Your task to perform on an android device: Add "energizer triple a" to the cart on ebay.com Image 0: 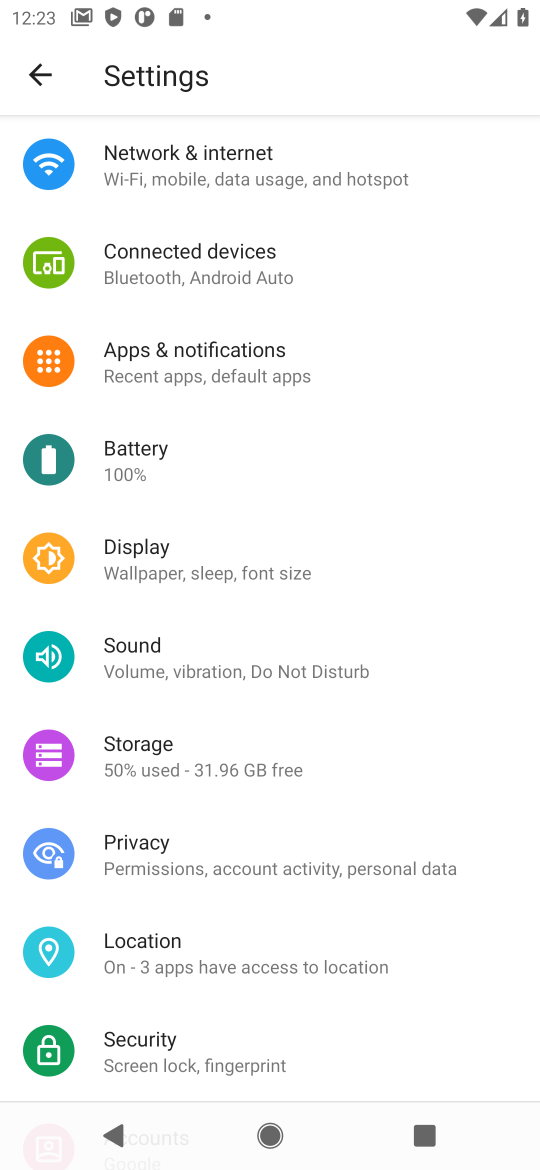
Step 0: press home button
Your task to perform on an android device: Add "energizer triple a" to the cart on ebay.com Image 1: 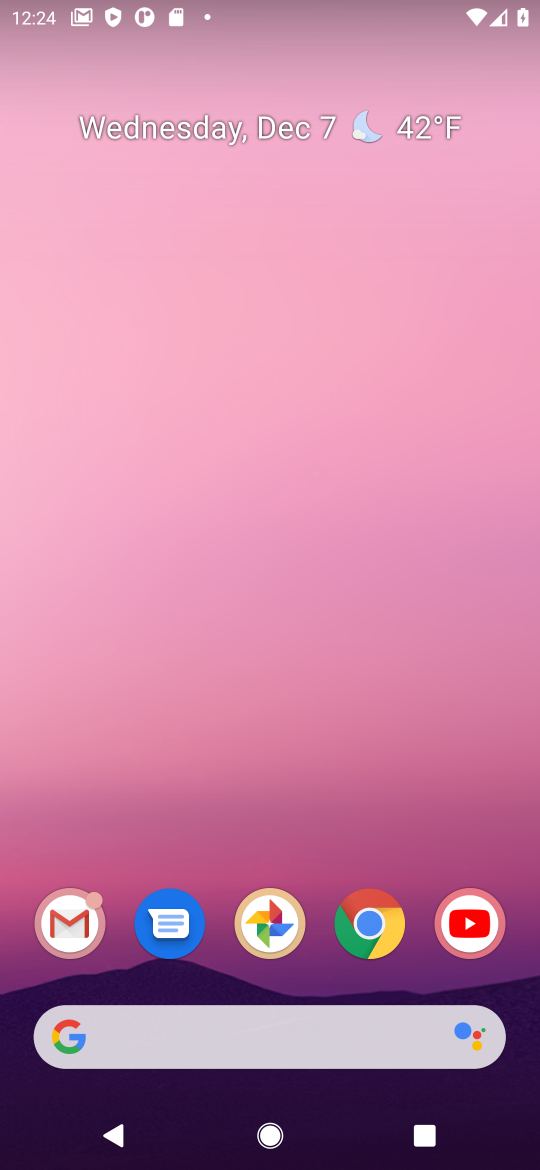
Step 1: click (368, 936)
Your task to perform on an android device: Add "energizer triple a" to the cart on ebay.com Image 2: 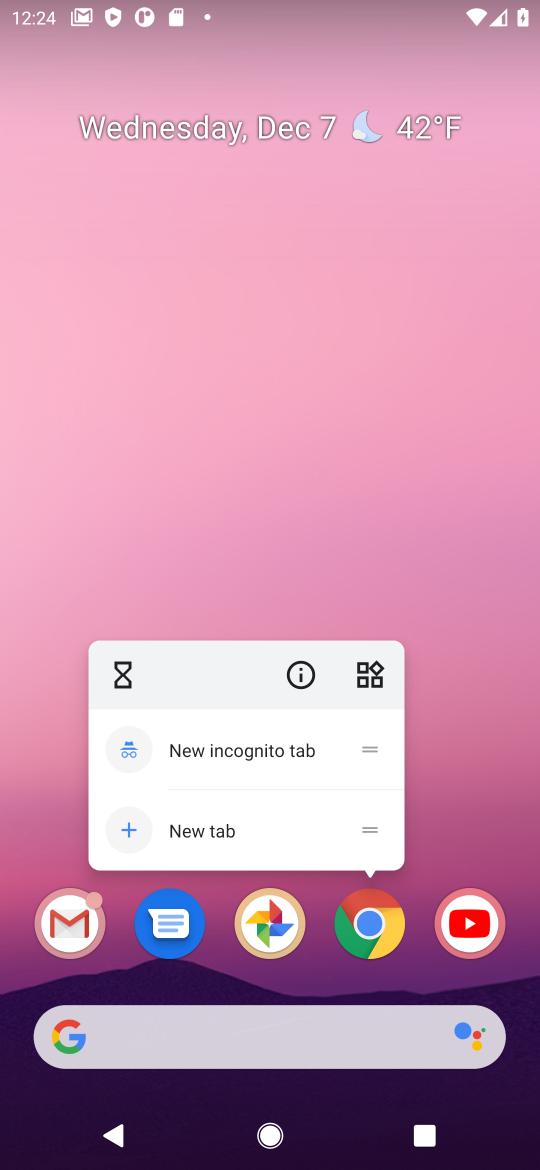
Step 2: click (364, 929)
Your task to perform on an android device: Add "energizer triple a" to the cart on ebay.com Image 3: 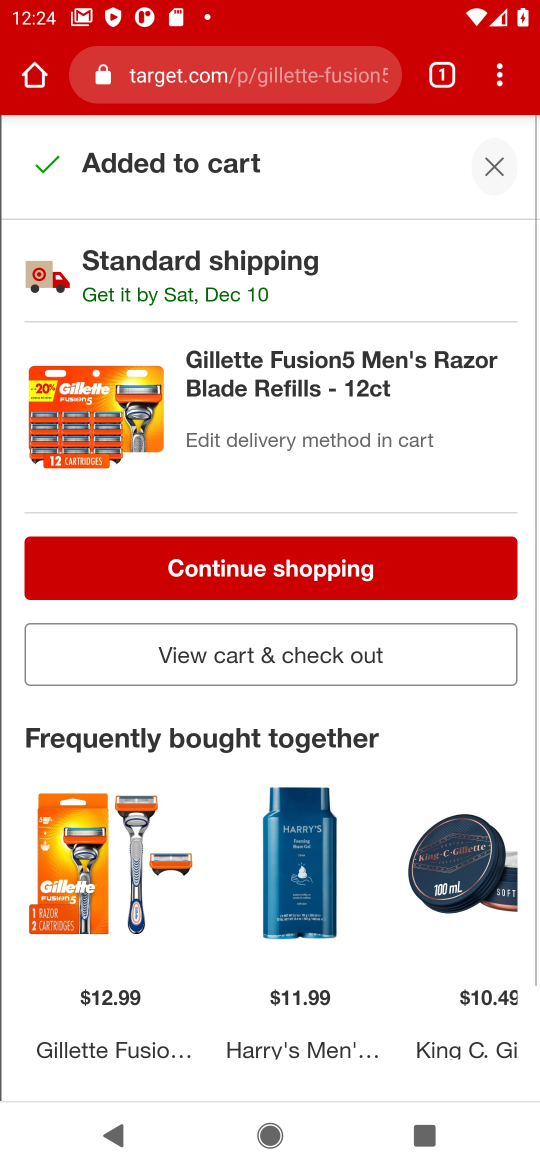
Step 3: click (276, 72)
Your task to perform on an android device: Add "energizer triple a" to the cart on ebay.com Image 4: 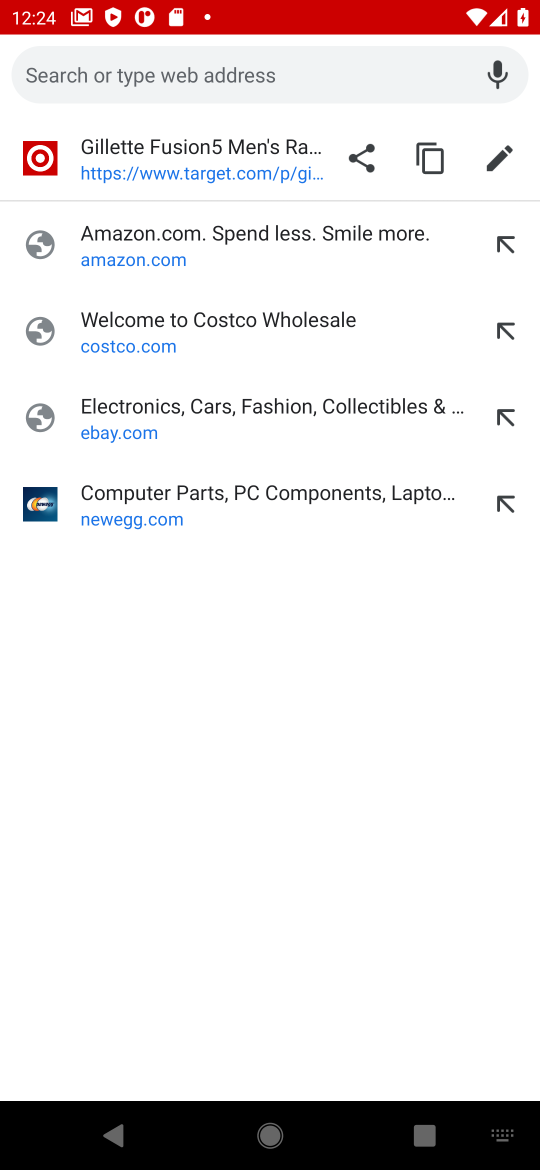
Step 4: click (165, 430)
Your task to perform on an android device: Add "energizer triple a" to the cart on ebay.com Image 5: 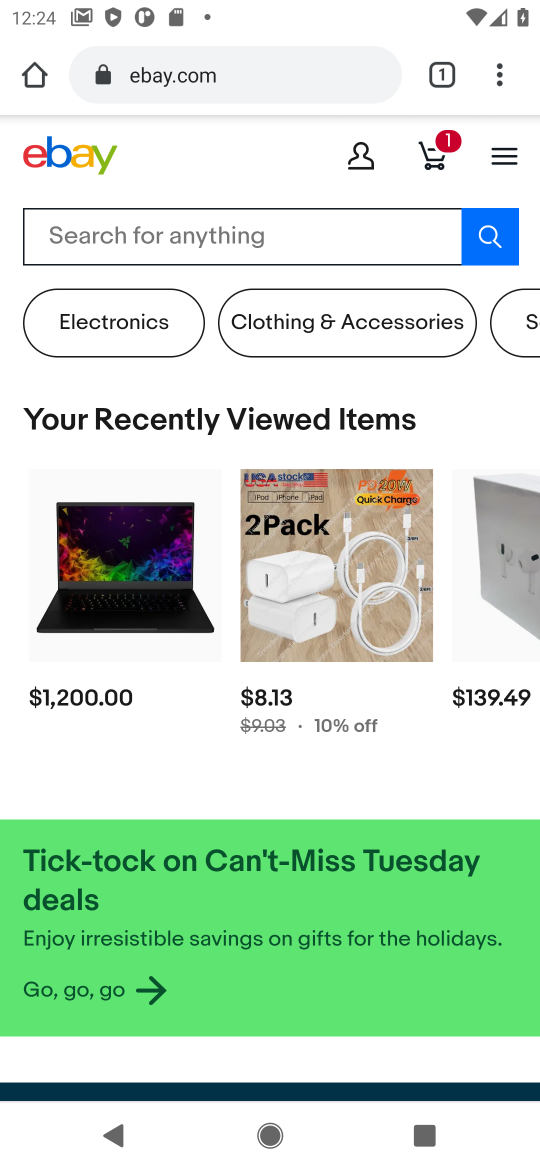
Step 5: click (345, 232)
Your task to perform on an android device: Add "energizer triple a" to the cart on ebay.com Image 6: 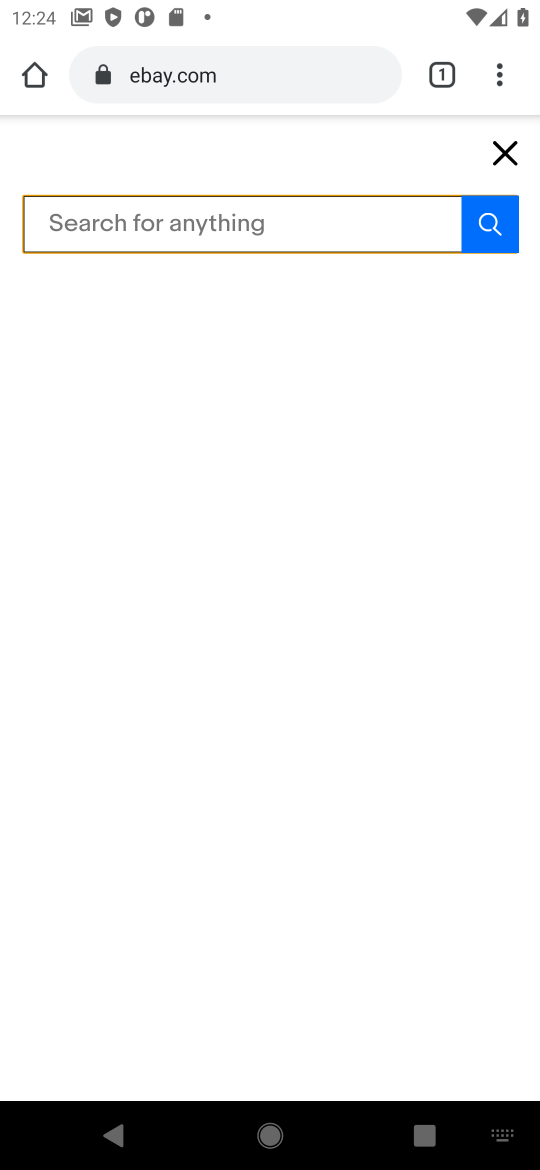
Step 6: type "energizer triple a"
Your task to perform on an android device: Add "energizer triple a" to the cart on ebay.com Image 7: 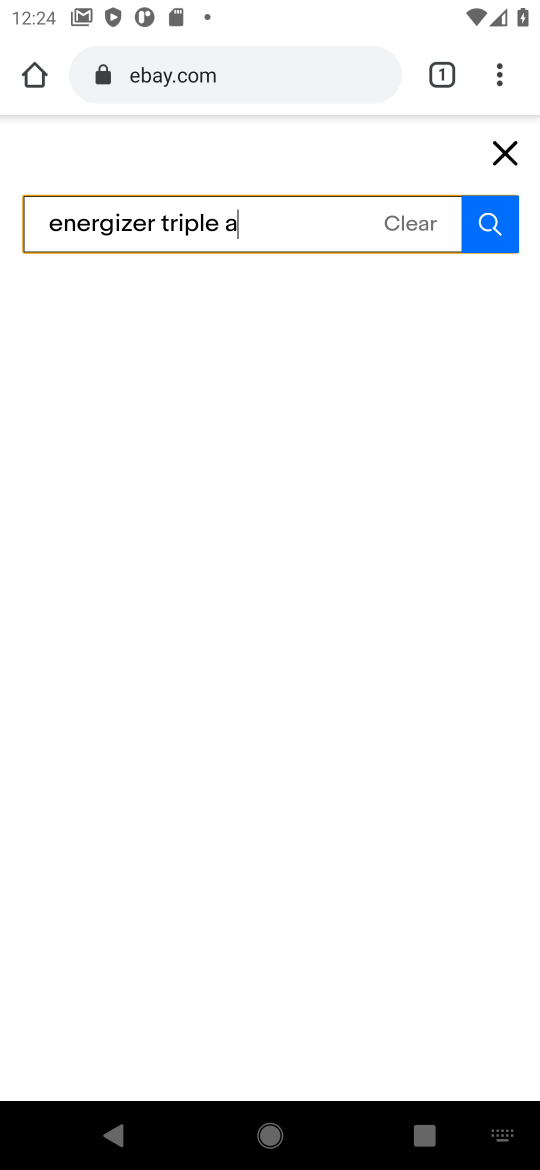
Step 7: click (488, 217)
Your task to perform on an android device: Add "energizer triple a" to the cart on ebay.com Image 8: 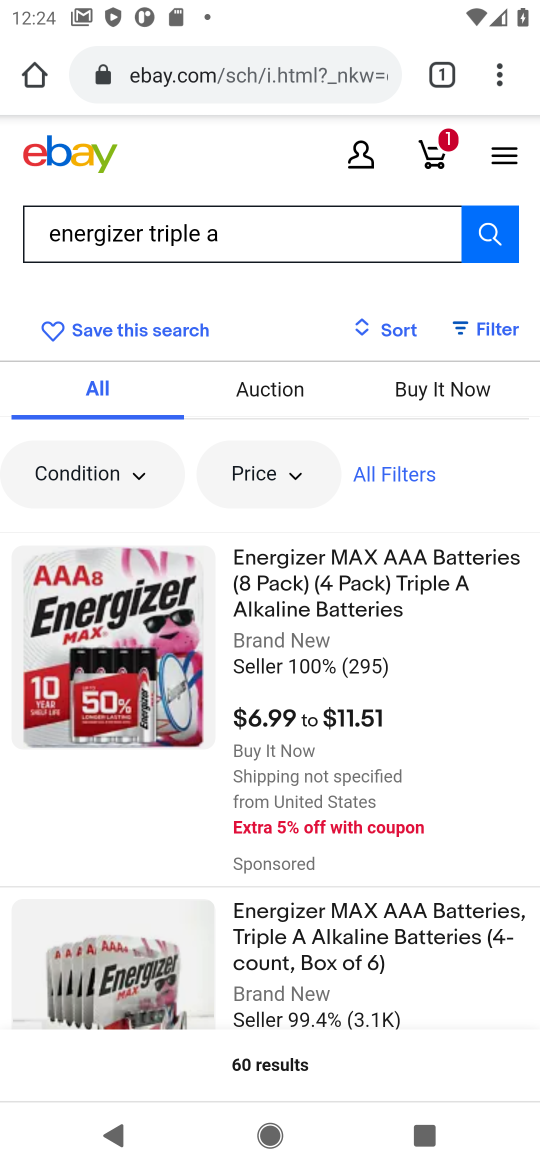
Step 8: click (114, 679)
Your task to perform on an android device: Add "energizer triple a" to the cart on ebay.com Image 9: 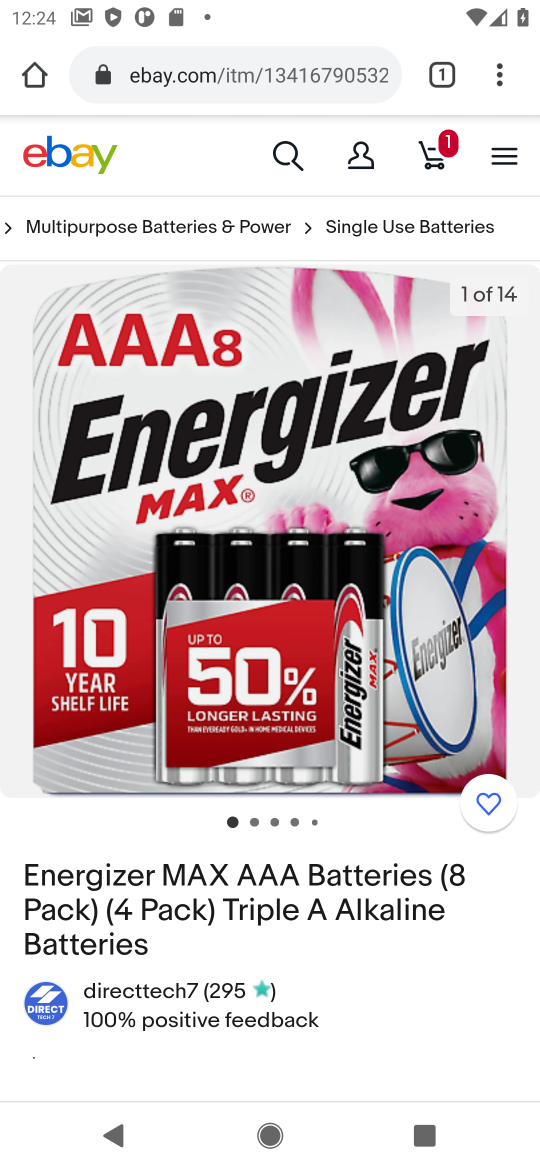
Step 9: drag from (353, 1004) to (361, 570)
Your task to perform on an android device: Add "energizer triple a" to the cart on ebay.com Image 10: 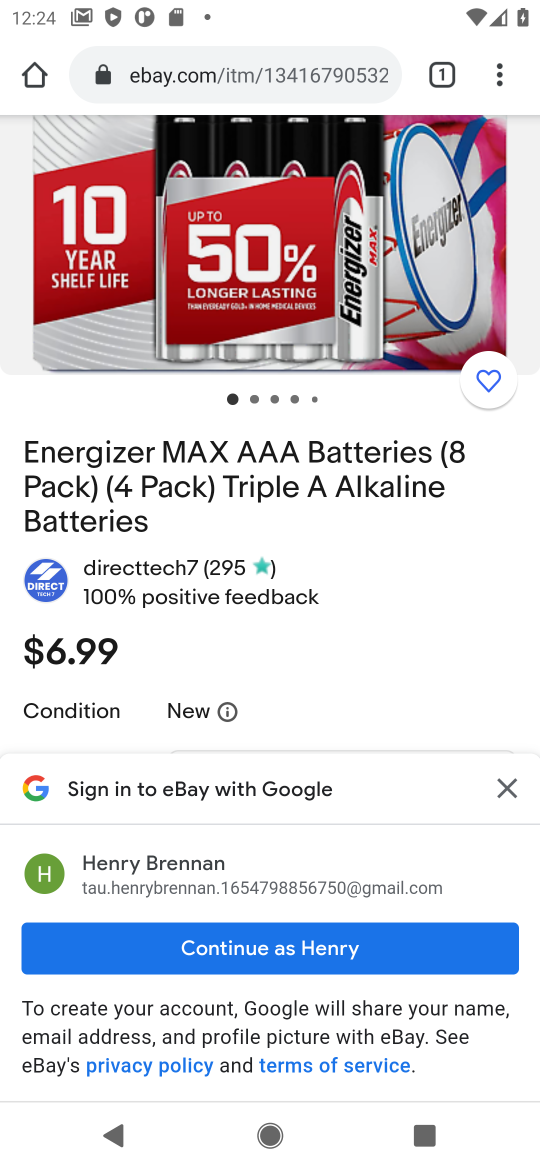
Step 10: click (498, 788)
Your task to perform on an android device: Add "energizer triple a" to the cart on ebay.com Image 11: 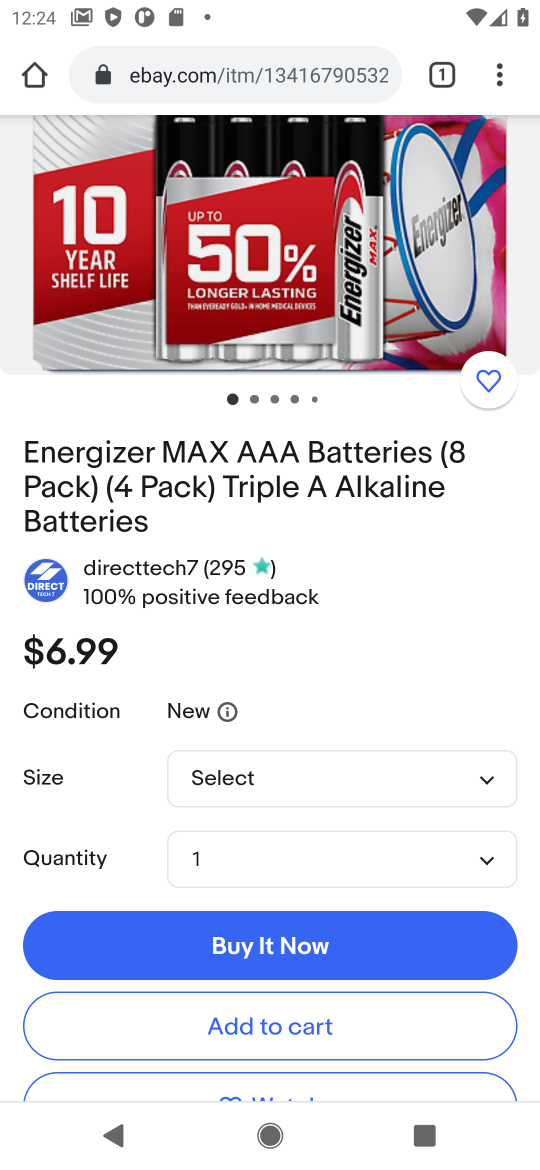
Step 11: click (251, 1025)
Your task to perform on an android device: Add "energizer triple a" to the cart on ebay.com Image 12: 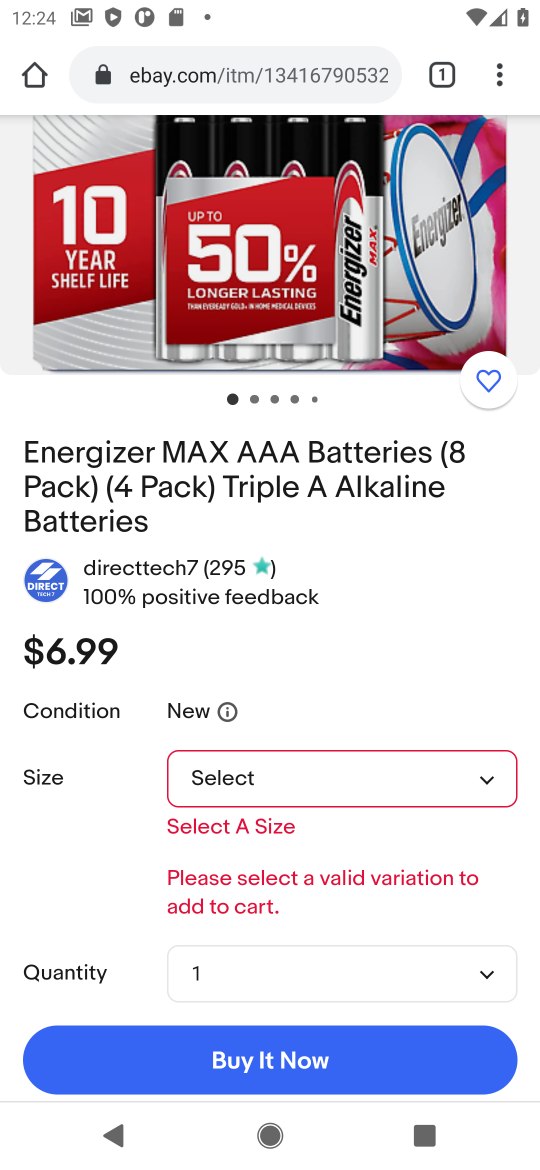
Step 12: click (384, 788)
Your task to perform on an android device: Add "energizer triple a" to the cart on ebay.com Image 13: 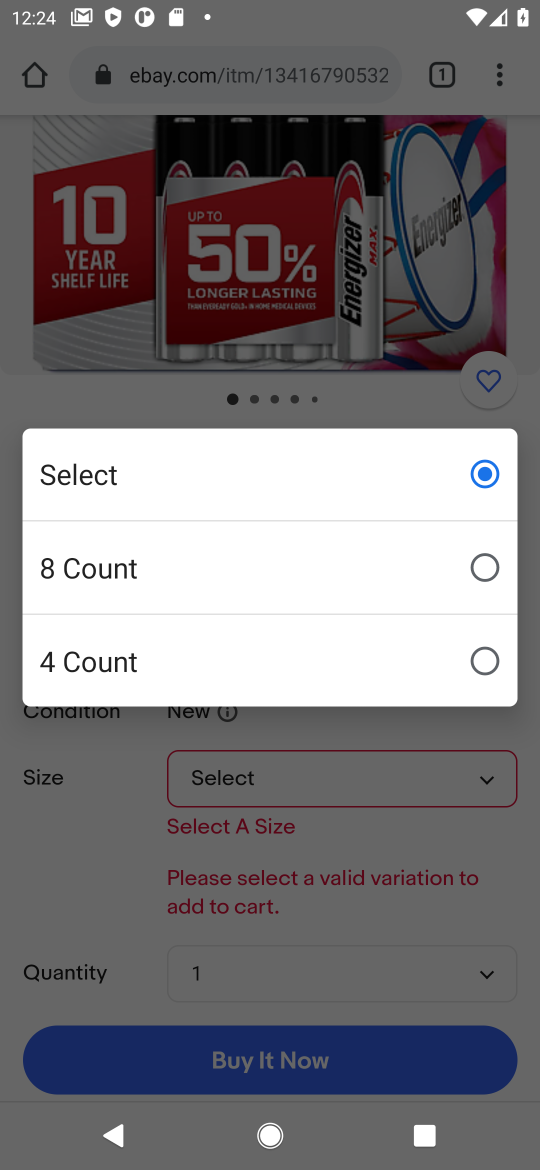
Step 13: click (245, 584)
Your task to perform on an android device: Add "energizer triple a" to the cart on ebay.com Image 14: 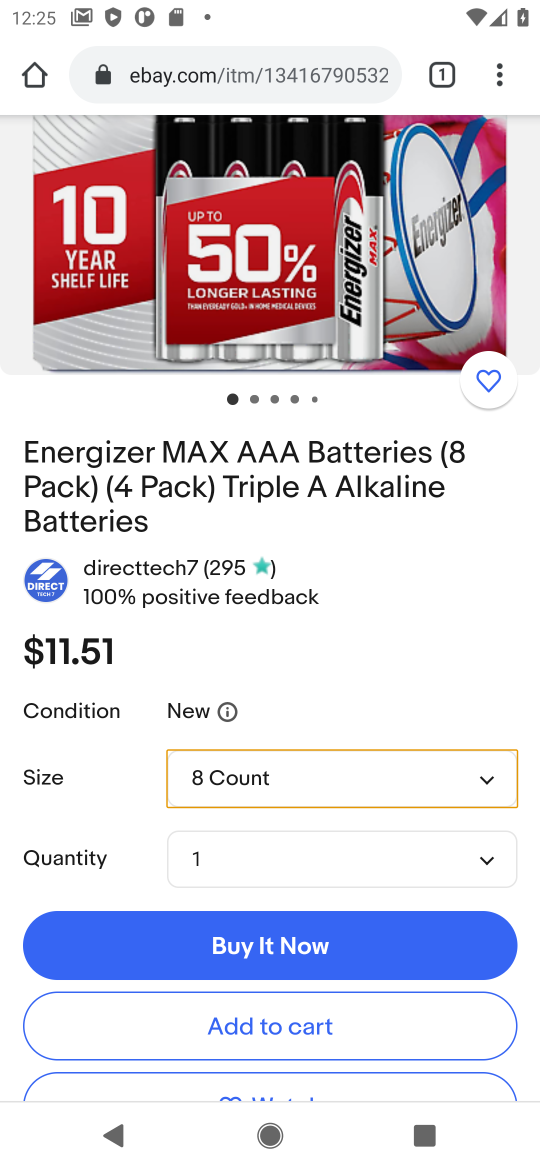
Step 14: click (288, 1033)
Your task to perform on an android device: Add "energizer triple a" to the cart on ebay.com Image 15: 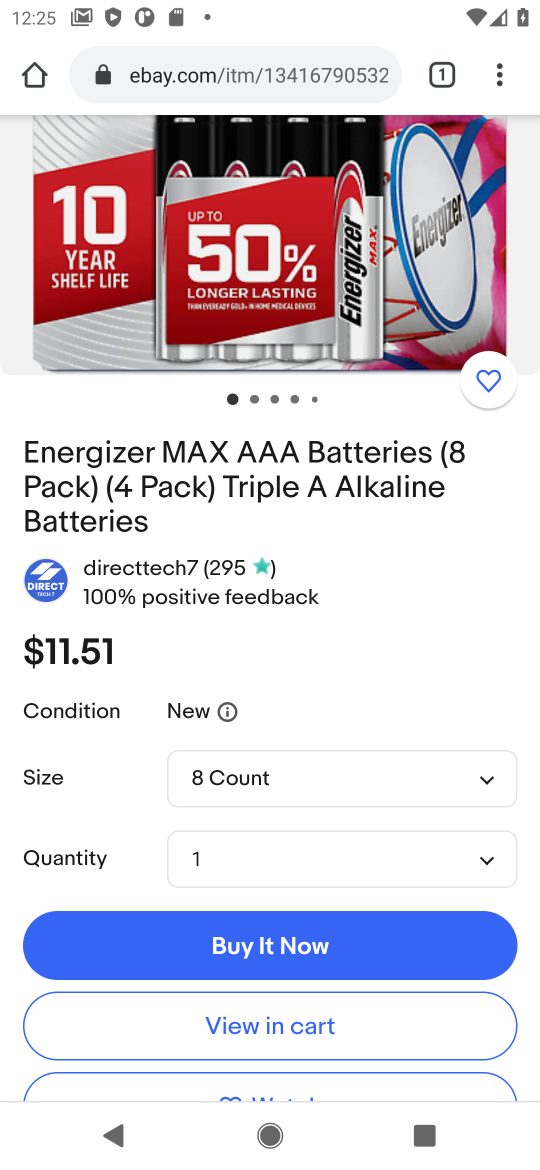
Step 15: click (300, 1027)
Your task to perform on an android device: Add "energizer triple a" to the cart on ebay.com Image 16: 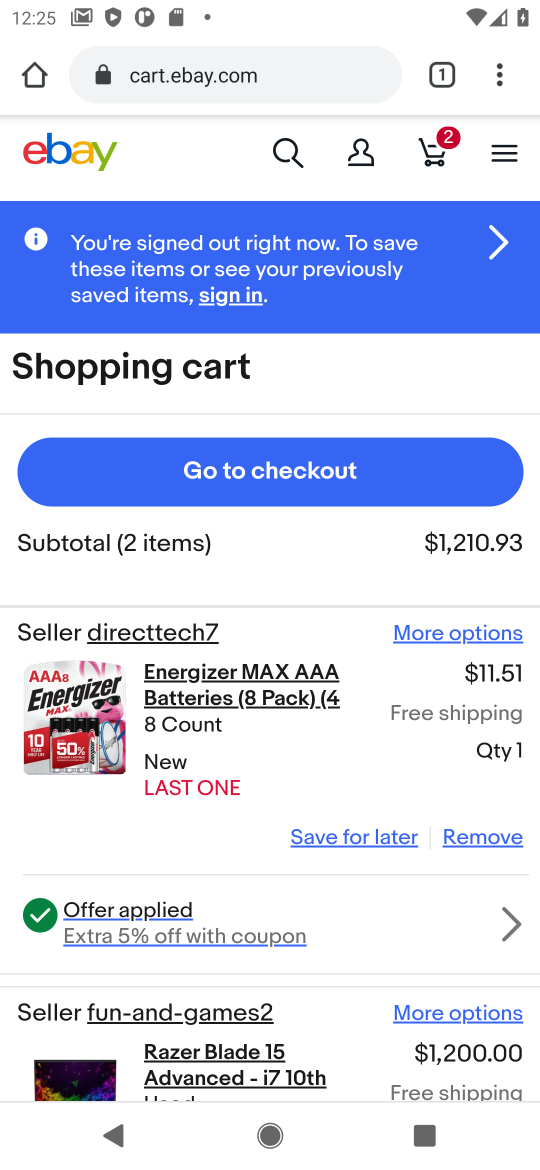
Step 16: click (311, 477)
Your task to perform on an android device: Add "energizer triple a" to the cart on ebay.com Image 17: 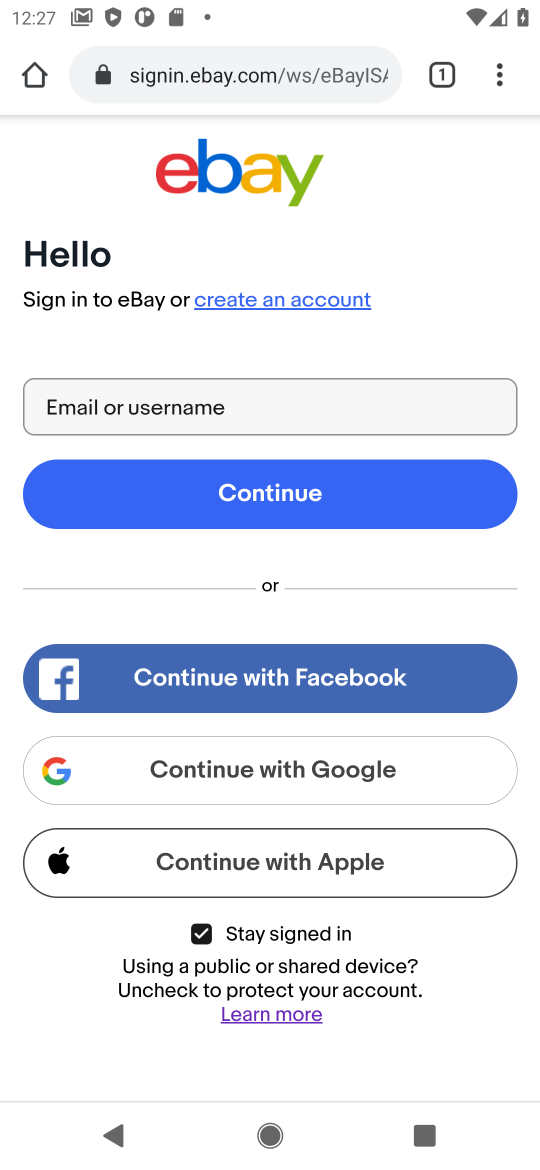
Step 17: task complete